Your task to perform on an android device: turn on bluetooth scan Image 0: 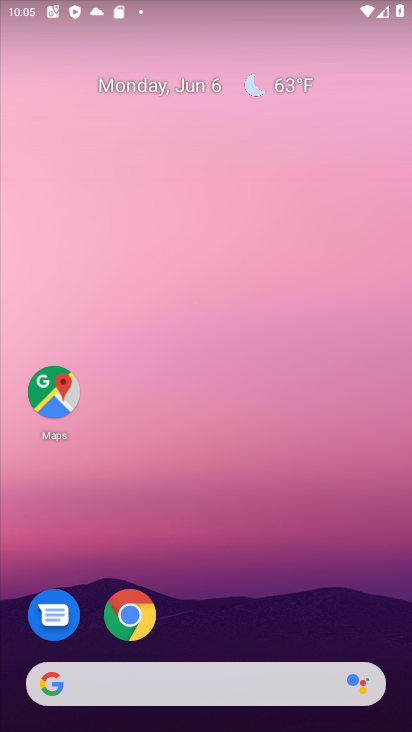
Step 0: drag from (244, 552) to (331, 17)
Your task to perform on an android device: turn on bluetooth scan Image 1: 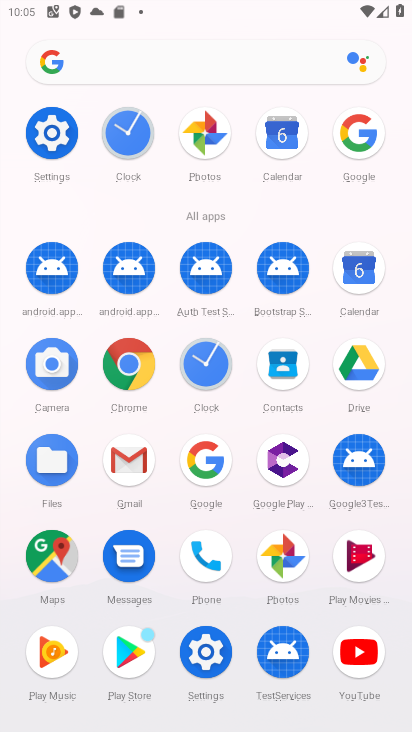
Step 1: click (63, 128)
Your task to perform on an android device: turn on bluetooth scan Image 2: 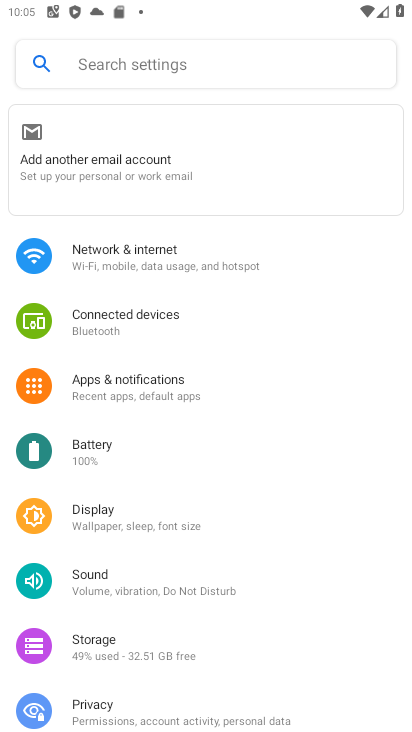
Step 2: click (118, 329)
Your task to perform on an android device: turn on bluetooth scan Image 3: 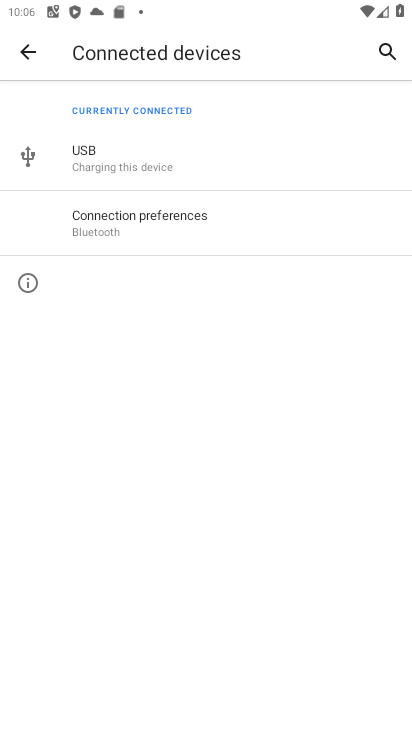
Step 3: click (134, 237)
Your task to perform on an android device: turn on bluetooth scan Image 4: 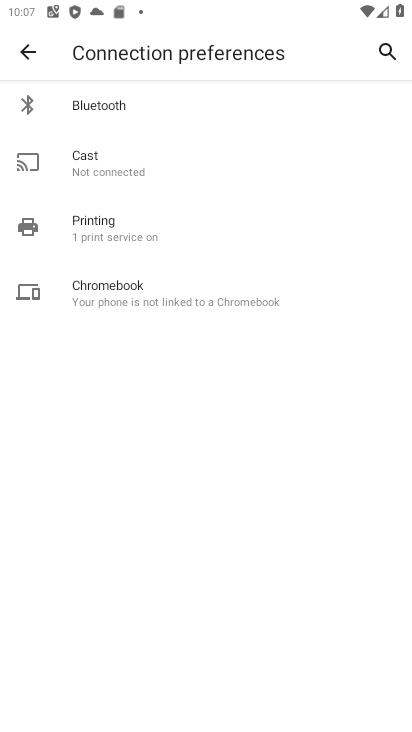
Step 4: click (139, 106)
Your task to perform on an android device: turn on bluetooth scan Image 5: 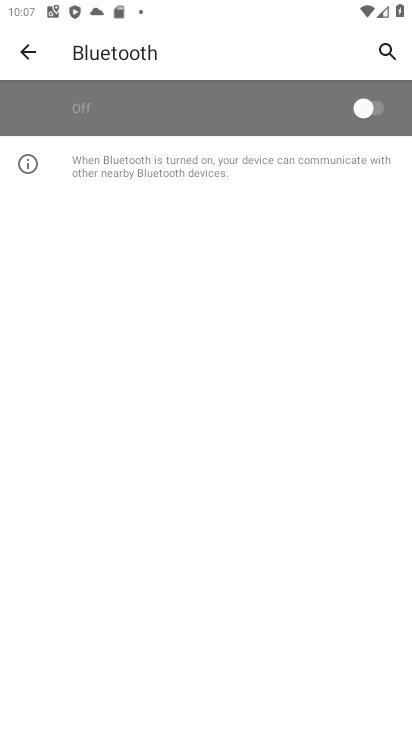
Step 5: click (353, 102)
Your task to perform on an android device: turn on bluetooth scan Image 6: 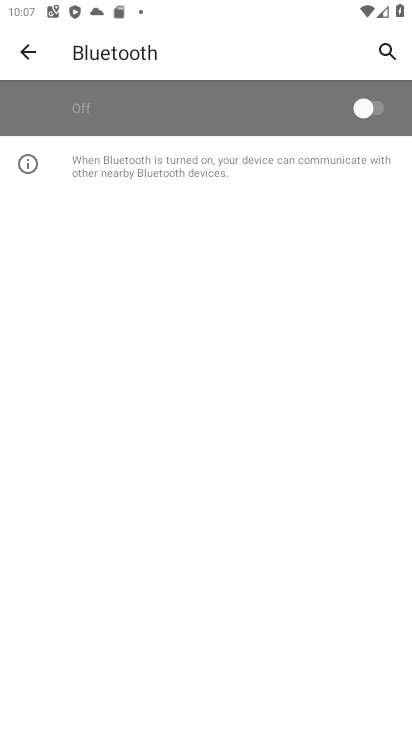
Step 6: click (350, 102)
Your task to perform on an android device: turn on bluetooth scan Image 7: 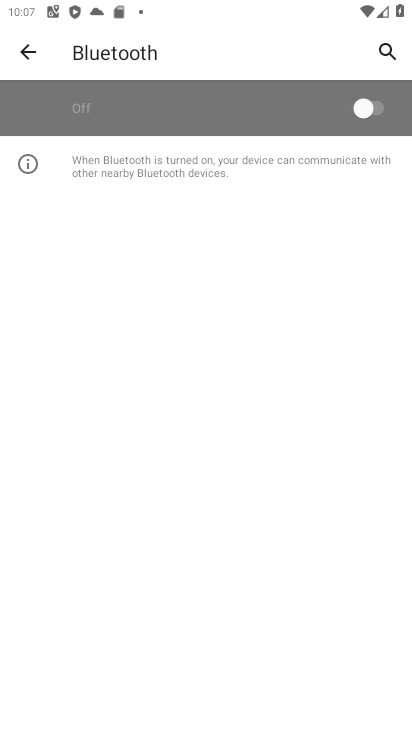
Step 7: task complete